Your task to perform on an android device: Open eBay Image 0: 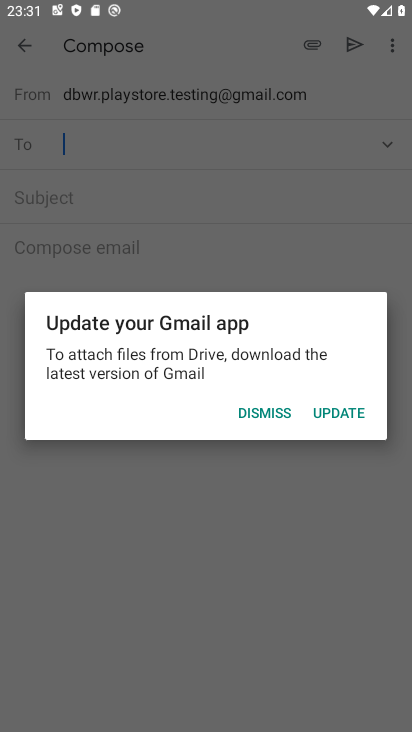
Step 0: press home button
Your task to perform on an android device: Open eBay Image 1: 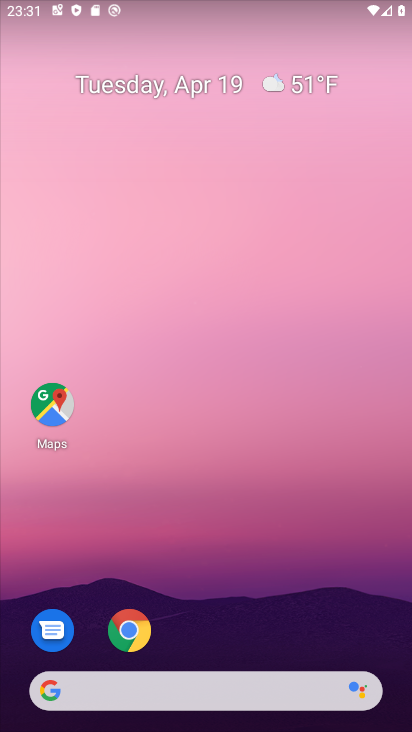
Step 1: drag from (296, 580) to (230, 282)
Your task to perform on an android device: Open eBay Image 2: 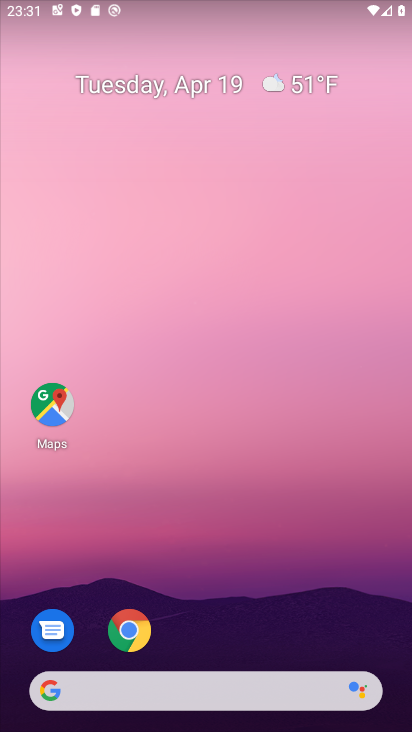
Step 2: drag from (332, 602) to (254, 234)
Your task to perform on an android device: Open eBay Image 3: 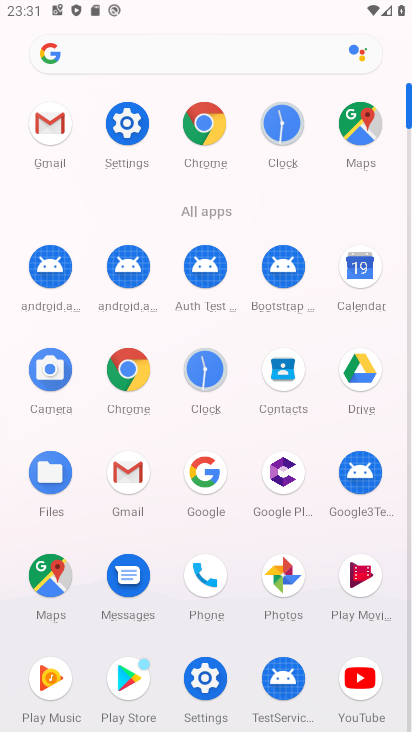
Step 3: click (220, 143)
Your task to perform on an android device: Open eBay Image 4: 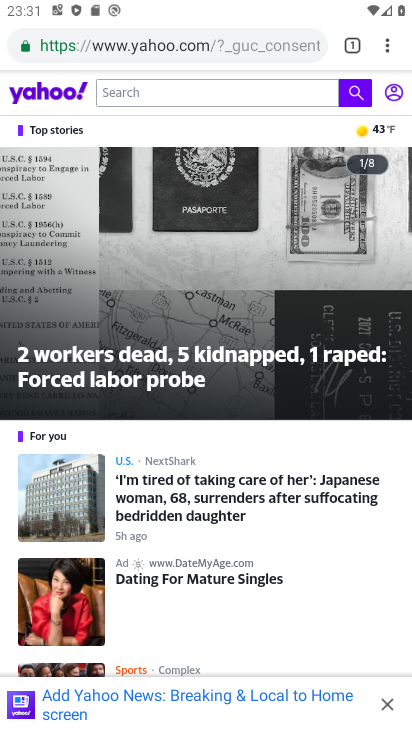
Step 4: click (358, 49)
Your task to perform on an android device: Open eBay Image 5: 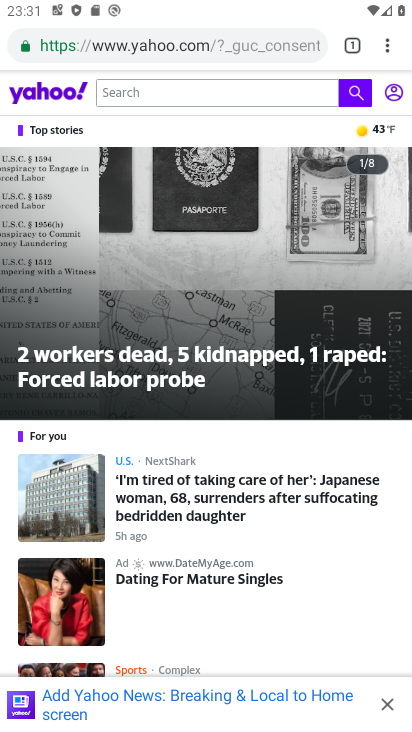
Step 5: click (351, 43)
Your task to perform on an android device: Open eBay Image 6: 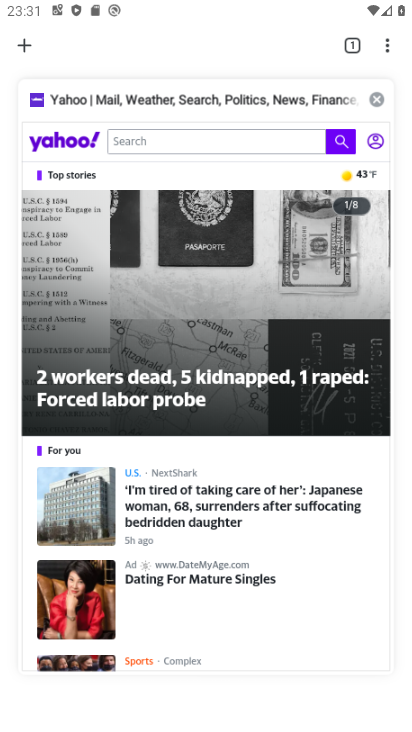
Step 6: click (33, 49)
Your task to perform on an android device: Open eBay Image 7: 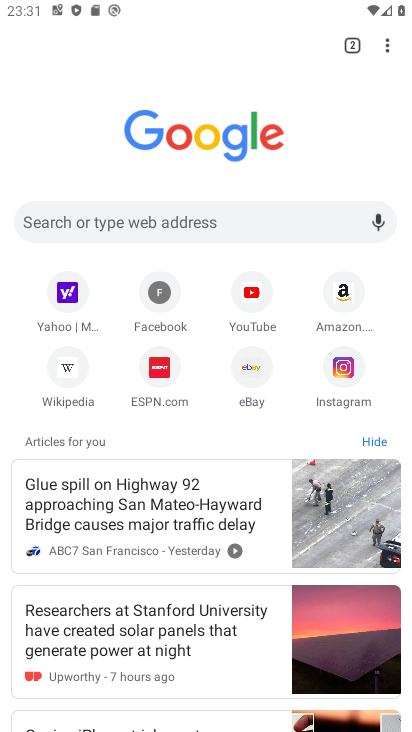
Step 7: click (261, 372)
Your task to perform on an android device: Open eBay Image 8: 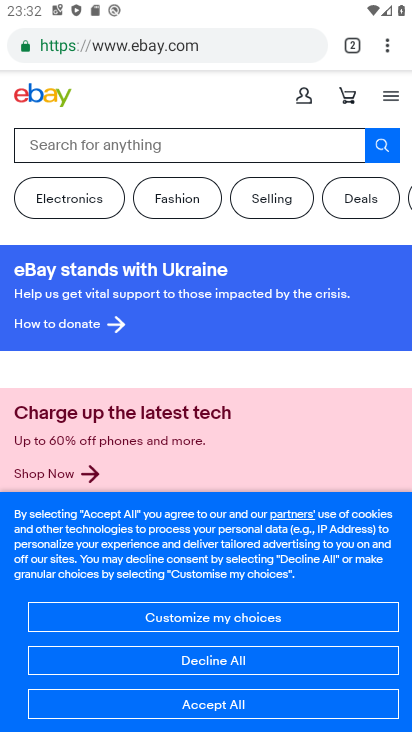
Step 8: task complete